Your task to perform on an android device: change timer sound Image 0: 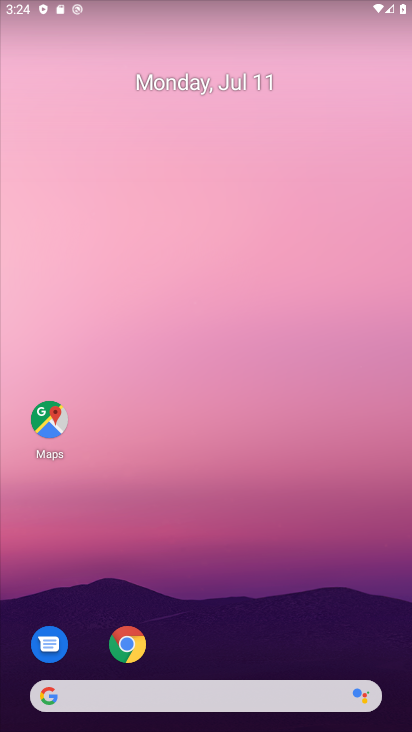
Step 0: drag from (231, 660) to (226, 248)
Your task to perform on an android device: change timer sound Image 1: 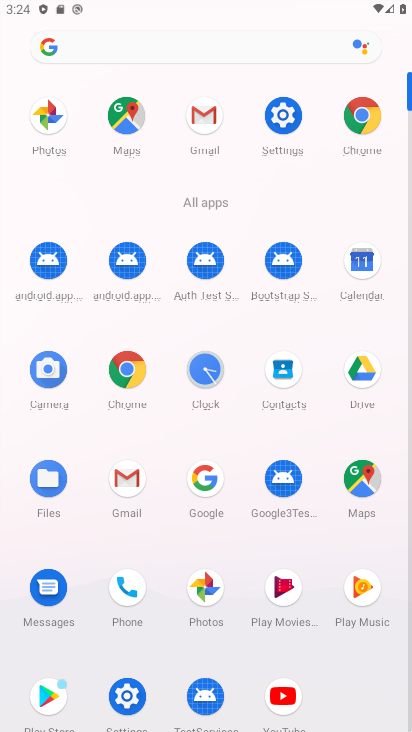
Step 1: click (274, 120)
Your task to perform on an android device: change timer sound Image 2: 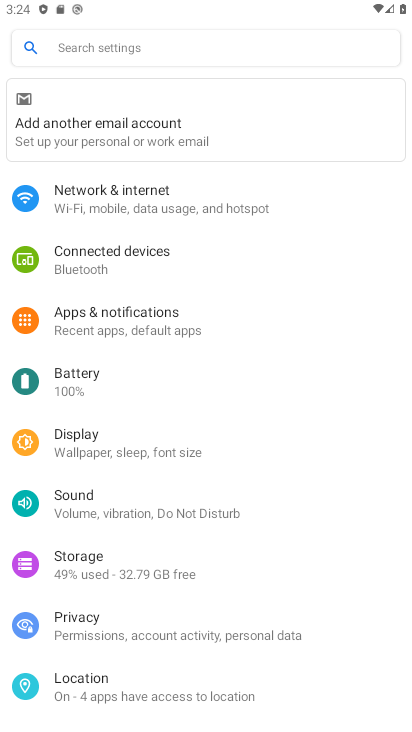
Step 2: press home button
Your task to perform on an android device: change timer sound Image 3: 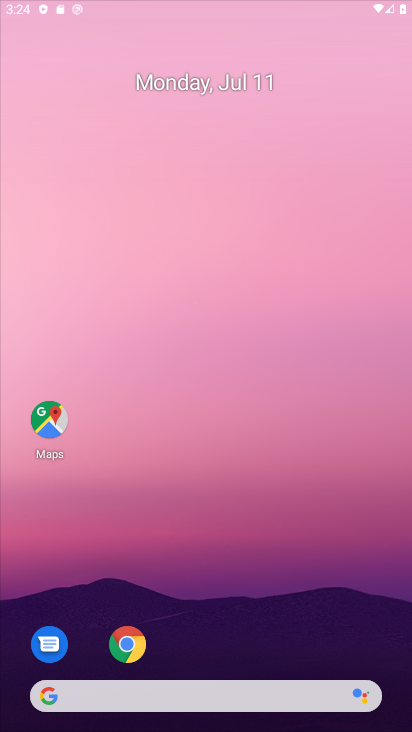
Step 3: drag from (225, 642) to (222, 266)
Your task to perform on an android device: change timer sound Image 4: 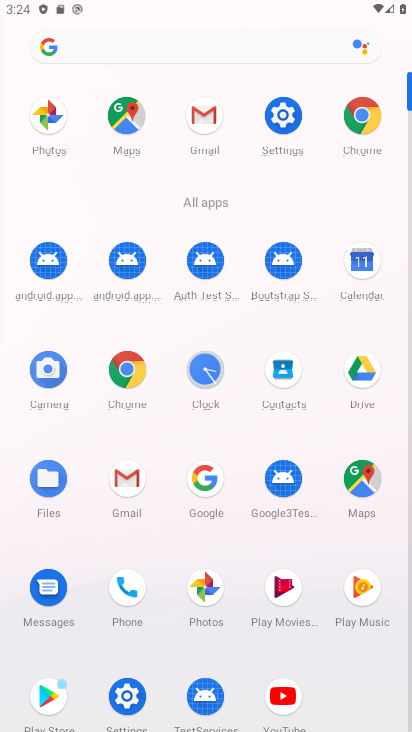
Step 4: click (238, 523)
Your task to perform on an android device: change timer sound Image 5: 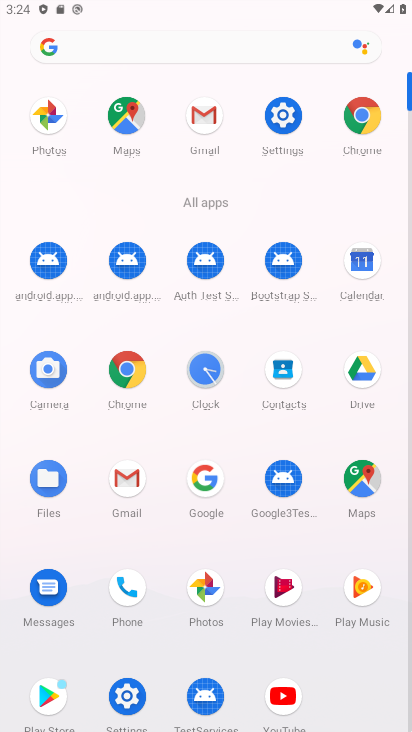
Step 5: click (238, 523)
Your task to perform on an android device: change timer sound Image 6: 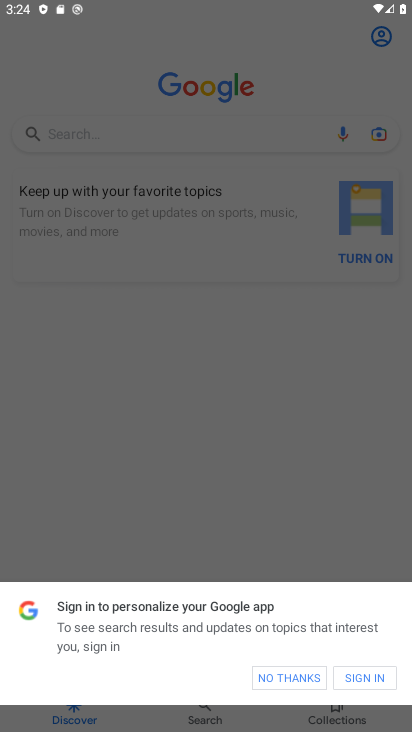
Step 6: press home button
Your task to perform on an android device: change timer sound Image 7: 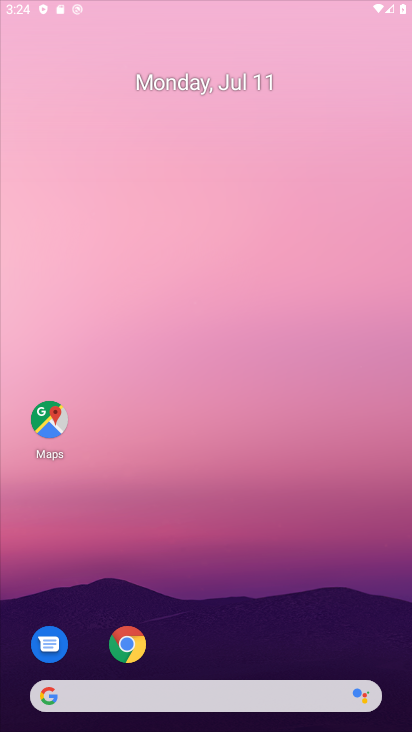
Step 7: drag from (202, 613) to (220, 178)
Your task to perform on an android device: change timer sound Image 8: 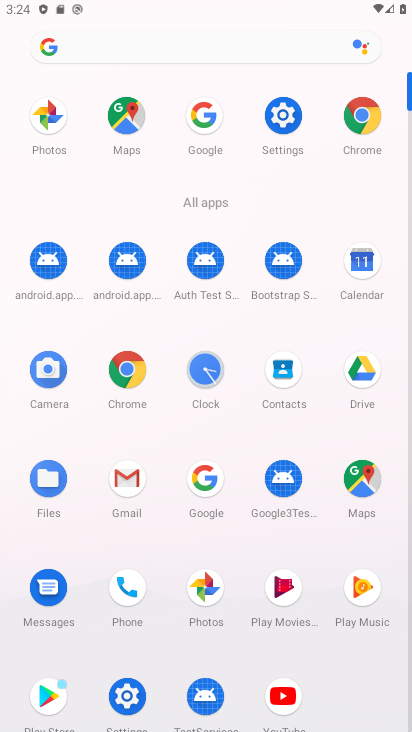
Step 8: click (193, 365)
Your task to perform on an android device: change timer sound Image 9: 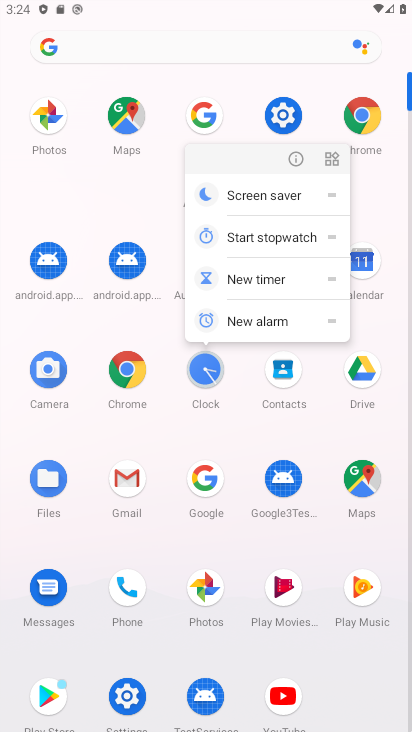
Step 9: click (201, 366)
Your task to perform on an android device: change timer sound Image 10: 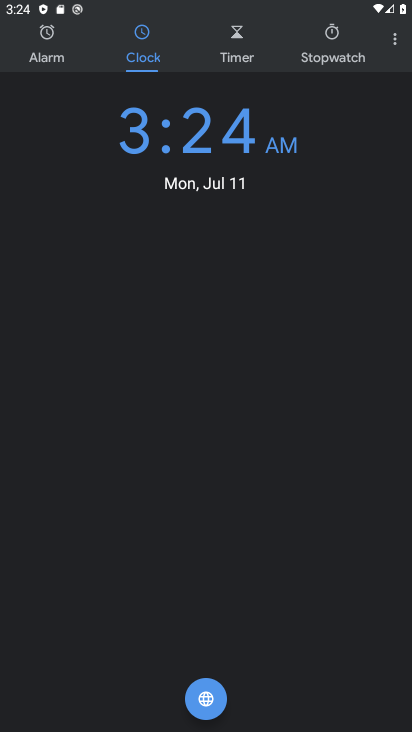
Step 10: click (392, 47)
Your task to perform on an android device: change timer sound Image 11: 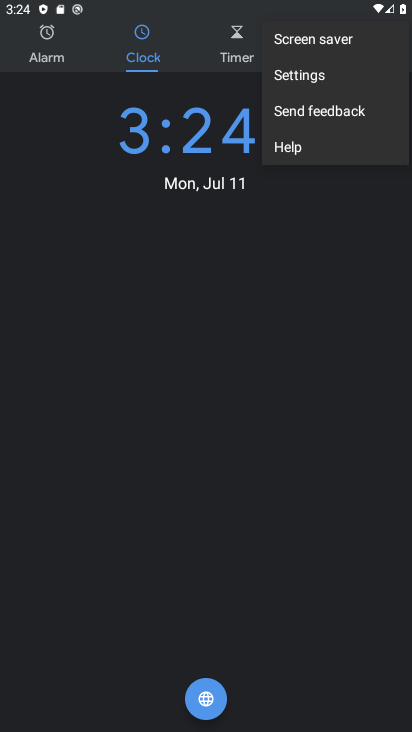
Step 11: click (309, 77)
Your task to perform on an android device: change timer sound Image 12: 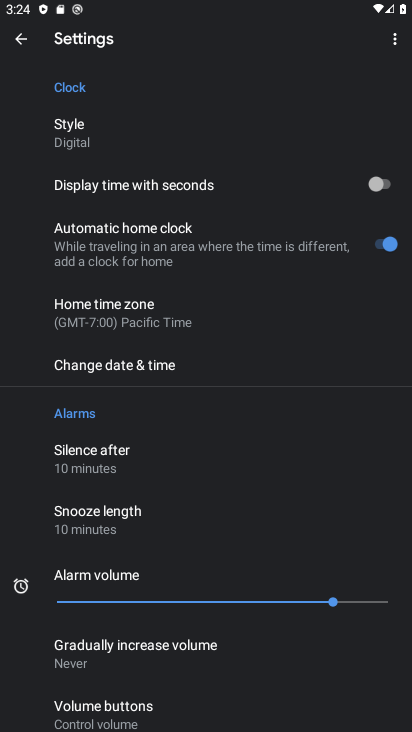
Step 12: drag from (165, 555) to (201, 209)
Your task to perform on an android device: change timer sound Image 13: 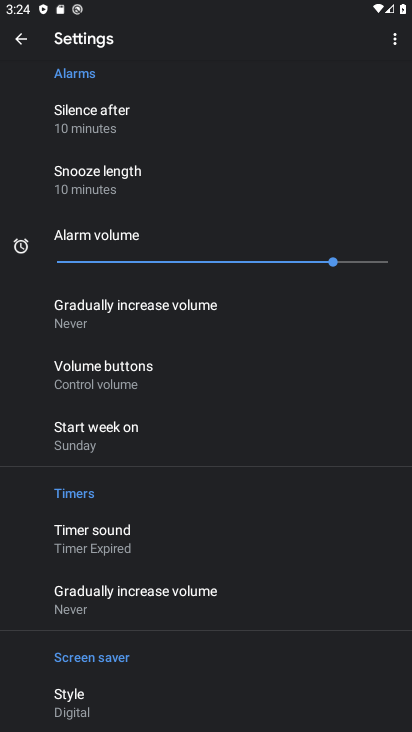
Step 13: click (127, 535)
Your task to perform on an android device: change timer sound Image 14: 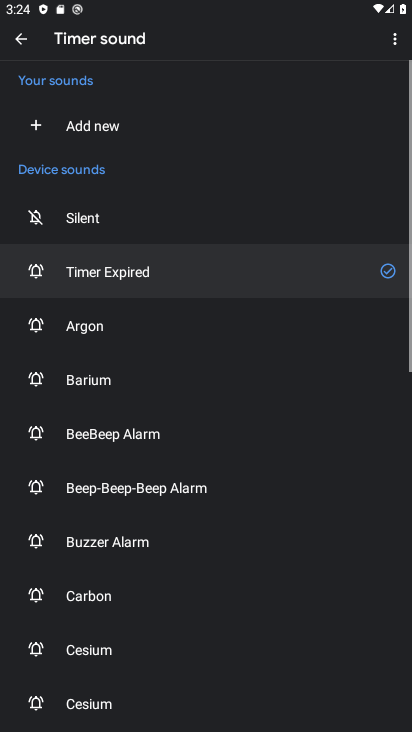
Step 14: click (133, 372)
Your task to perform on an android device: change timer sound Image 15: 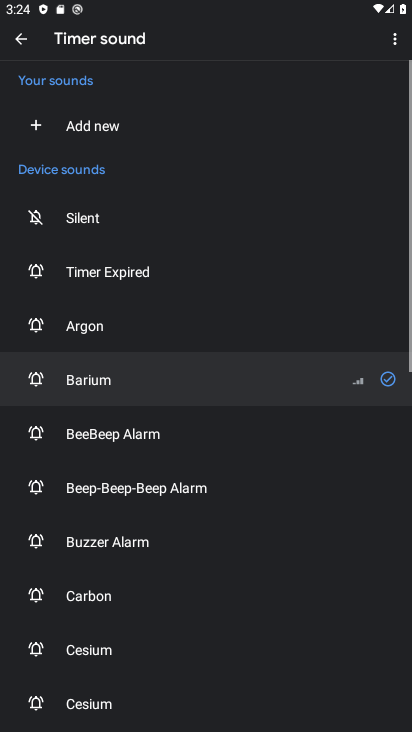
Step 15: task complete